Your task to perform on an android device: allow notifications from all sites in the chrome app Image 0: 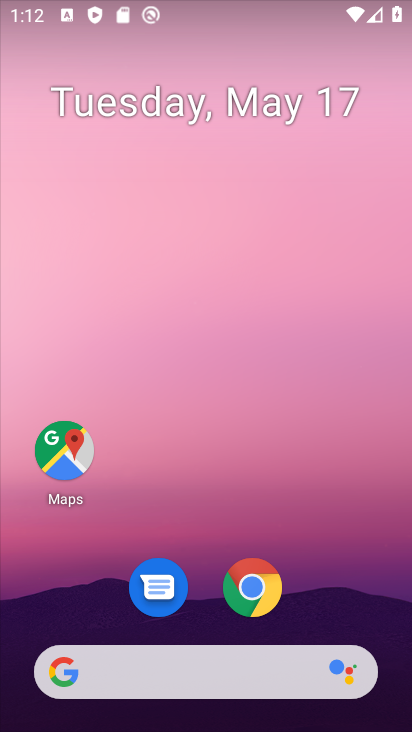
Step 0: drag from (210, 610) to (267, 204)
Your task to perform on an android device: allow notifications from all sites in the chrome app Image 1: 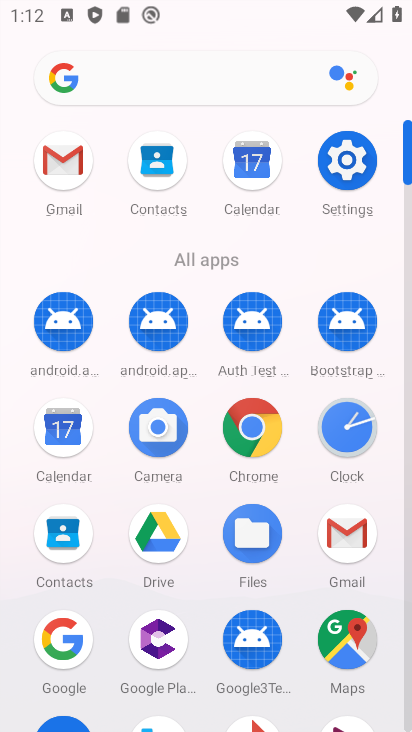
Step 1: click (242, 428)
Your task to perform on an android device: allow notifications from all sites in the chrome app Image 2: 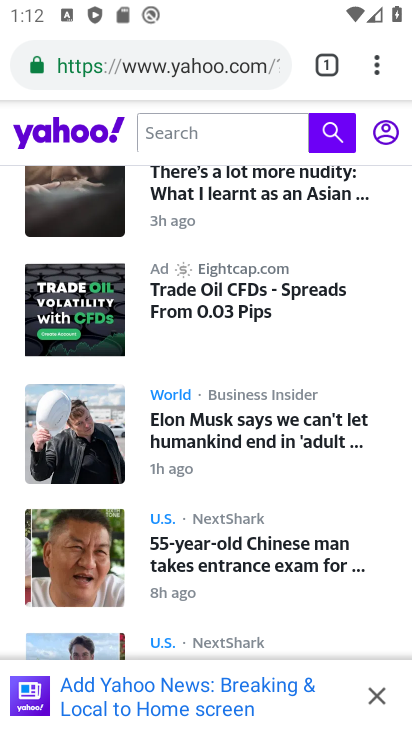
Step 2: drag from (282, 283) to (338, 726)
Your task to perform on an android device: allow notifications from all sites in the chrome app Image 3: 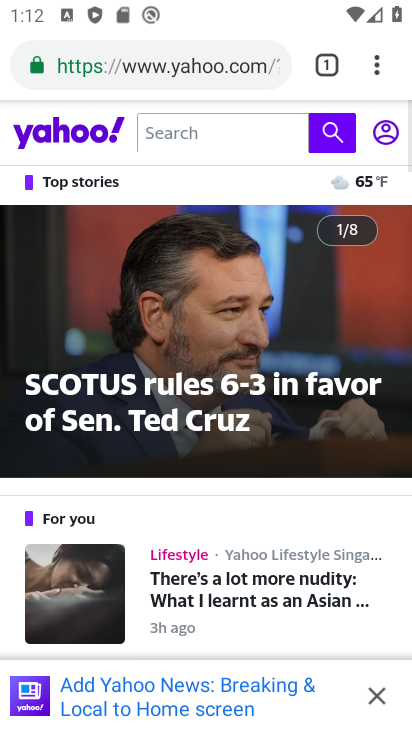
Step 3: drag from (234, 348) to (319, 692)
Your task to perform on an android device: allow notifications from all sites in the chrome app Image 4: 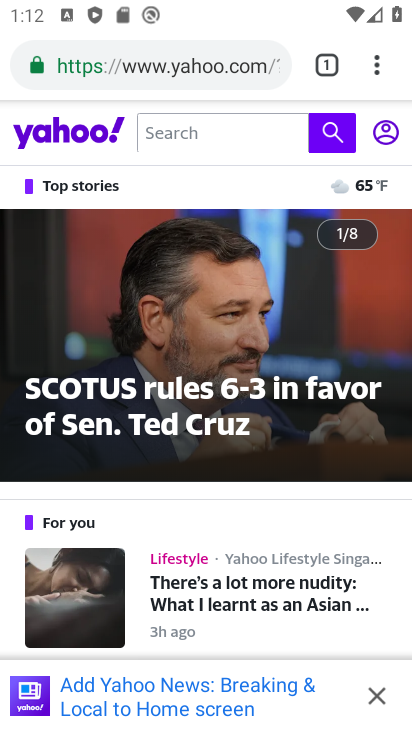
Step 4: click (367, 65)
Your task to perform on an android device: allow notifications from all sites in the chrome app Image 5: 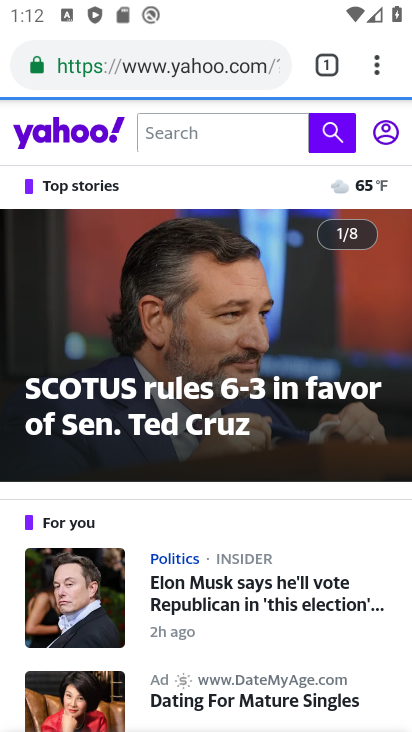
Step 5: click (377, 70)
Your task to perform on an android device: allow notifications from all sites in the chrome app Image 6: 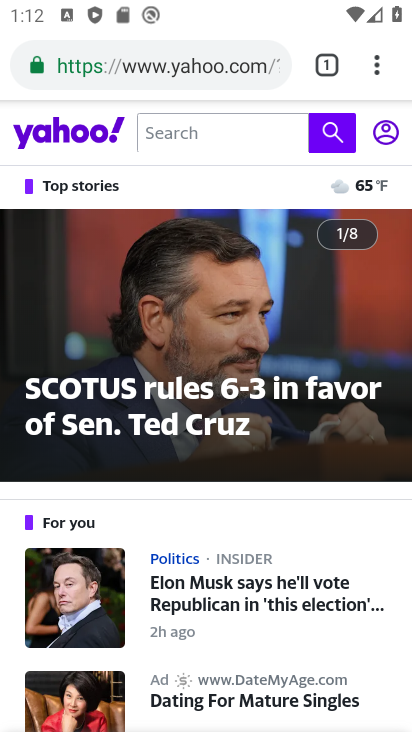
Step 6: click (376, 70)
Your task to perform on an android device: allow notifications from all sites in the chrome app Image 7: 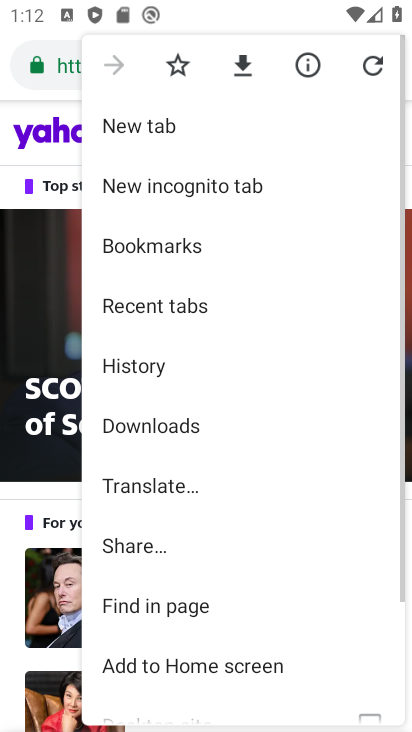
Step 7: drag from (243, 654) to (324, 157)
Your task to perform on an android device: allow notifications from all sites in the chrome app Image 8: 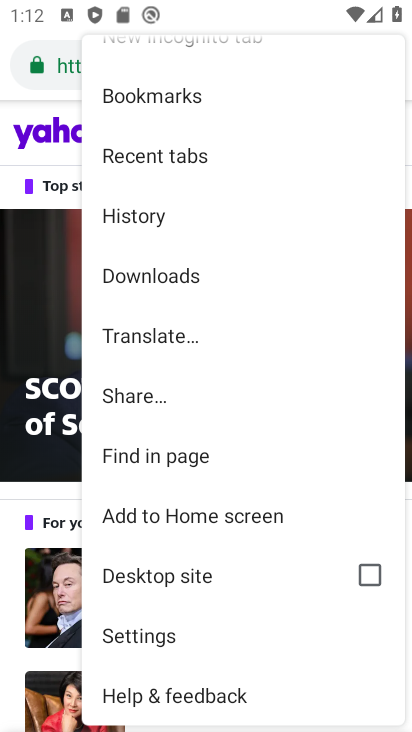
Step 8: click (172, 620)
Your task to perform on an android device: allow notifications from all sites in the chrome app Image 9: 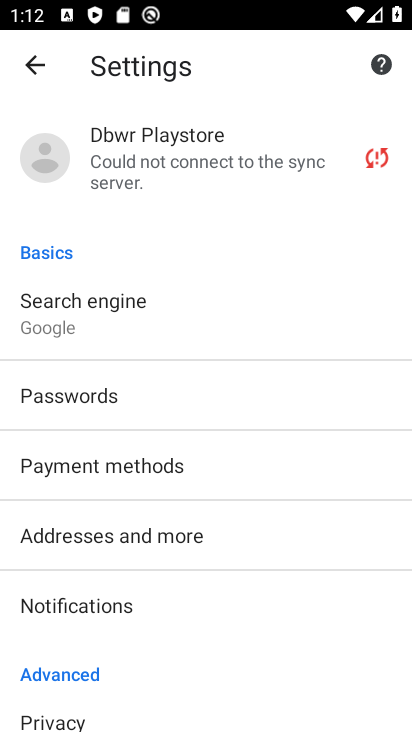
Step 9: drag from (194, 568) to (355, 197)
Your task to perform on an android device: allow notifications from all sites in the chrome app Image 10: 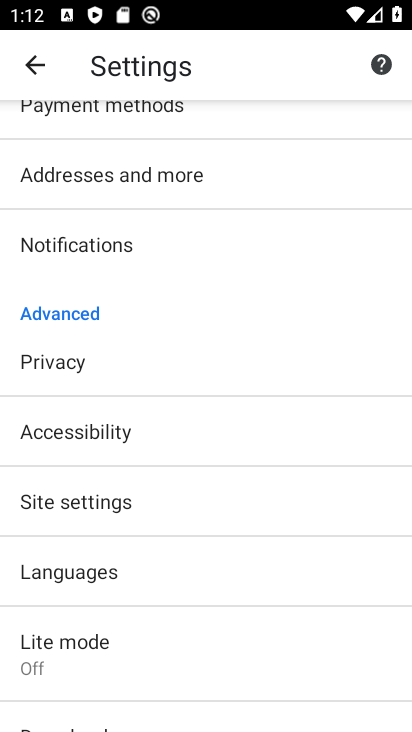
Step 10: drag from (173, 619) to (353, 239)
Your task to perform on an android device: allow notifications from all sites in the chrome app Image 11: 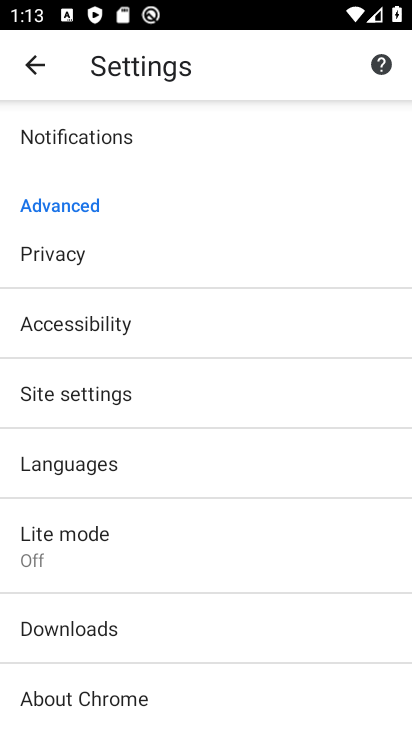
Step 11: click (132, 407)
Your task to perform on an android device: allow notifications from all sites in the chrome app Image 12: 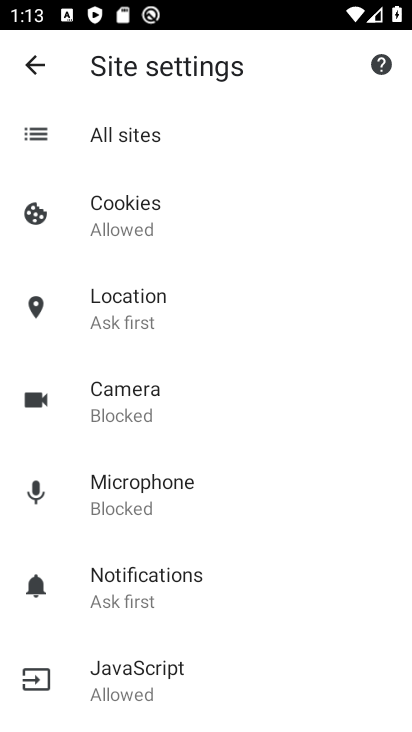
Step 12: drag from (226, 664) to (298, 236)
Your task to perform on an android device: allow notifications from all sites in the chrome app Image 13: 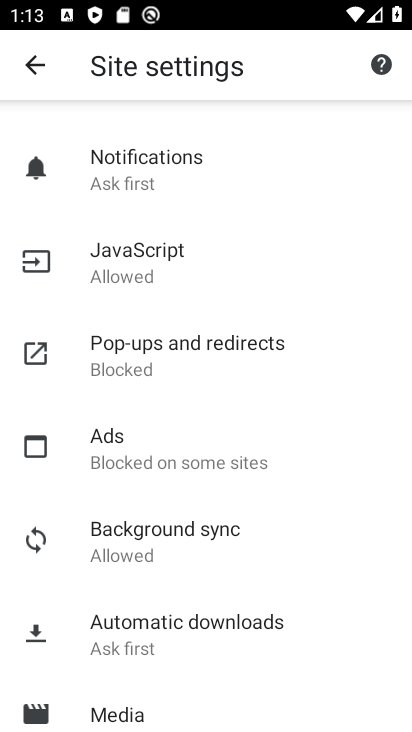
Step 13: drag from (204, 596) to (319, 328)
Your task to perform on an android device: allow notifications from all sites in the chrome app Image 14: 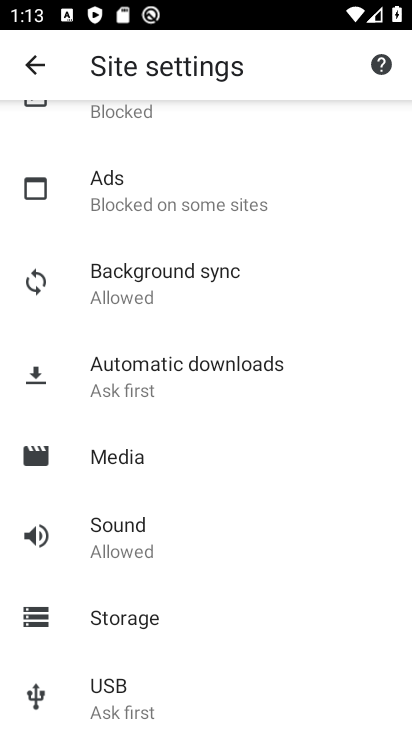
Step 14: drag from (216, 616) to (326, 161)
Your task to perform on an android device: allow notifications from all sites in the chrome app Image 15: 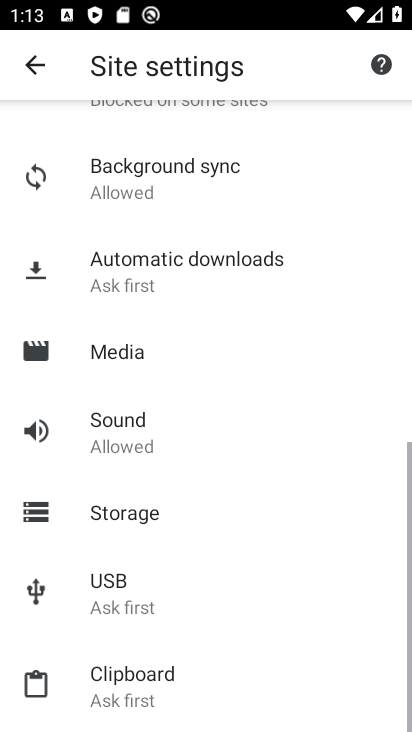
Step 15: drag from (248, 315) to (222, 713)
Your task to perform on an android device: allow notifications from all sites in the chrome app Image 16: 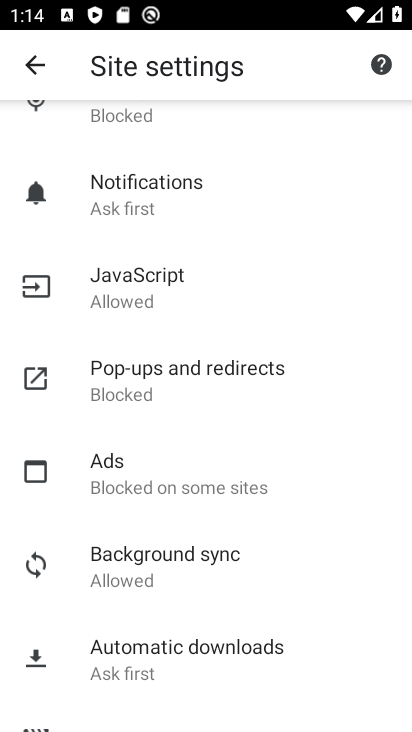
Step 16: drag from (219, 553) to (274, 262)
Your task to perform on an android device: allow notifications from all sites in the chrome app Image 17: 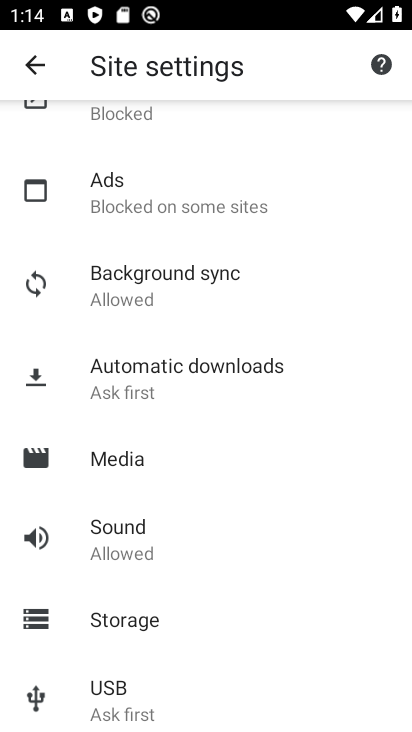
Step 17: drag from (260, 570) to (282, 241)
Your task to perform on an android device: allow notifications from all sites in the chrome app Image 18: 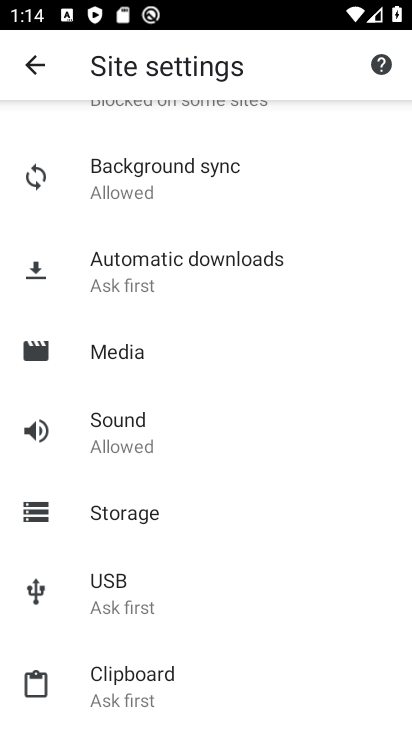
Step 18: drag from (174, 166) to (198, 605)
Your task to perform on an android device: allow notifications from all sites in the chrome app Image 19: 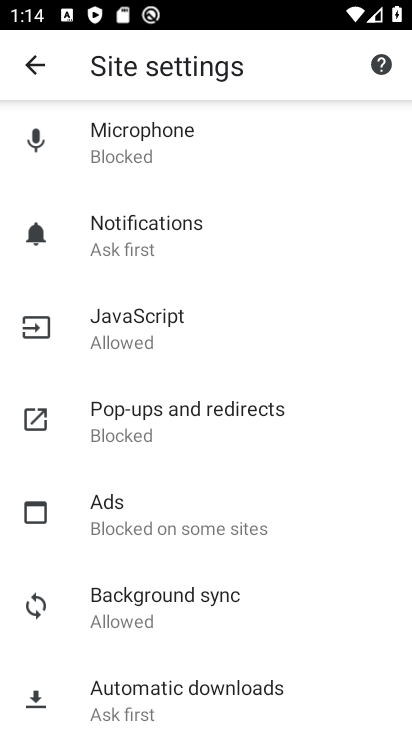
Step 19: click (161, 231)
Your task to perform on an android device: allow notifications from all sites in the chrome app Image 20: 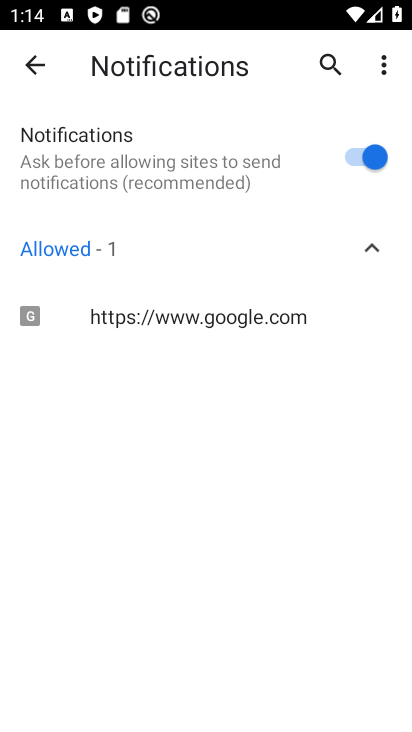
Step 20: task complete